Your task to perform on an android device: Open battery settings Image 0: 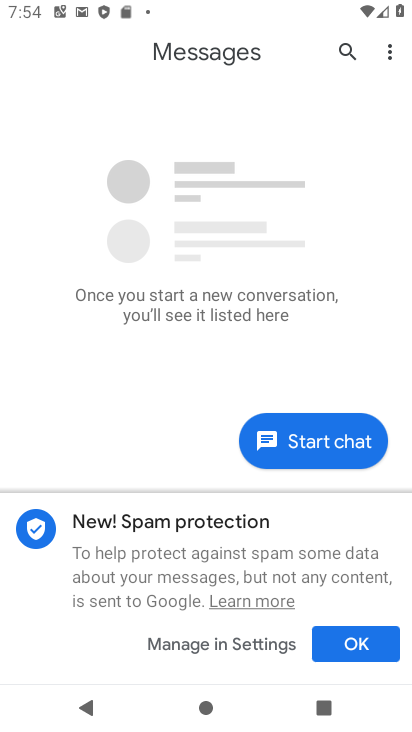
Step 0: press home button
Your task to perform on an android device: Open battery settings Image 1: 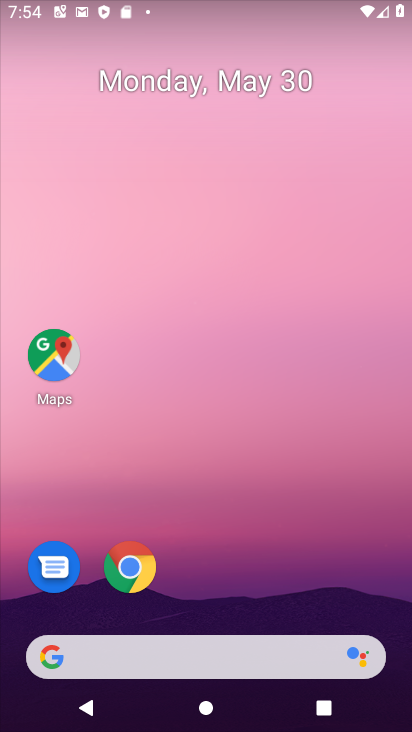
Step 1: drag from (266, 561) to (195, 56)
Your task to perform on an android device: Open battery settings Image 2: 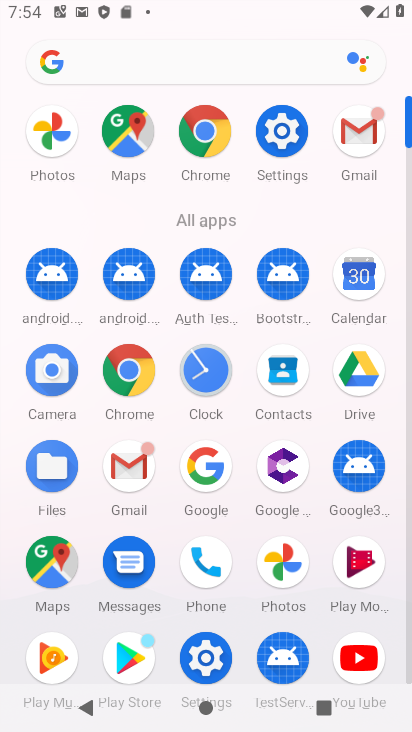
Step 2: click (263, 121)
Your task to perform on an android device: Open battery settings Image 3: 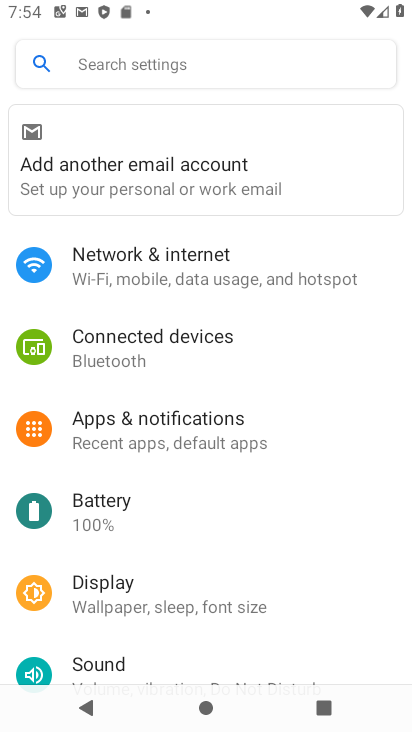
Step 3: click (192, 403)
Your task to perform on an android device: Open battery settings Image 4: 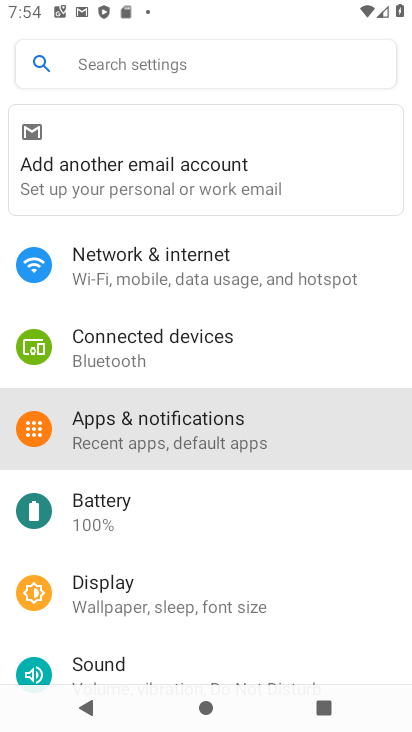
Step 4: task complete